Your task to perform on an android device: Open calendar and show me the fourth week of next month Image 0: 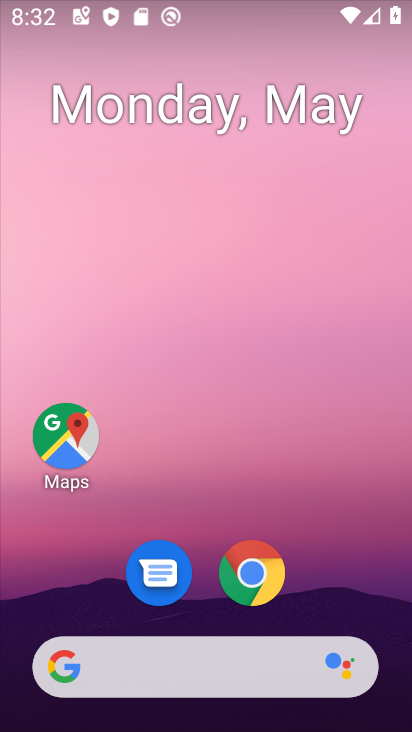
Step 0: drag from (348, 562) to (277, 162)
Your task to perform on an android device: Open calendar and show me the fourth week of next month Image 1: 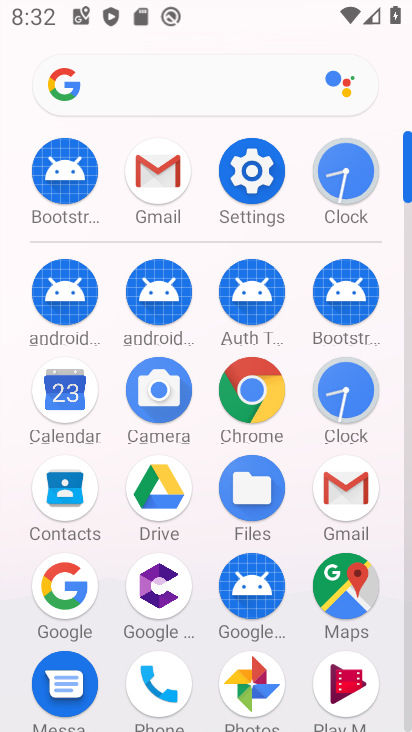
Step 1: click (59, 415)
Your task to perform on an android device: Open calendar and show me the fourth week of next month Image 2: 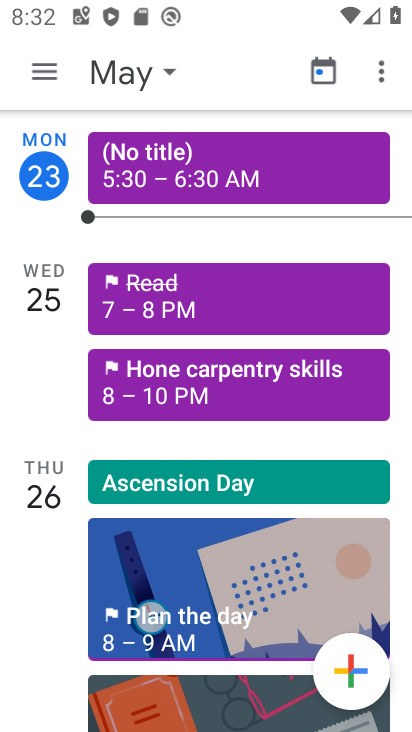
Step 2: click (148, 90)
Your task to perform on an android device: Open calendar and show me the fourth week of next month Image 3: 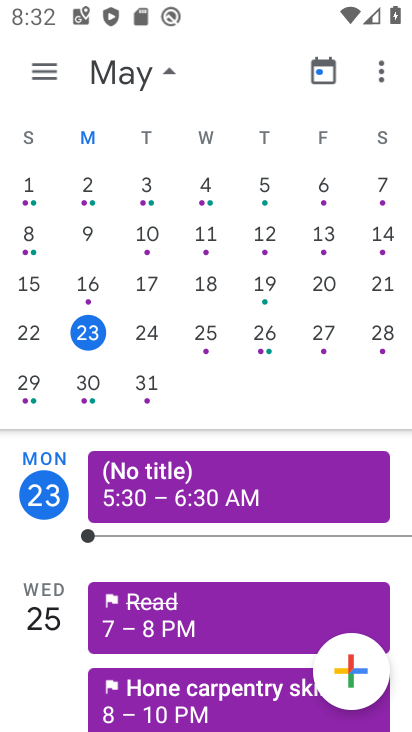
Step 3: drag from (392, 337) to (38, 349)
Your task to perform on an android device: Open calendar and show me the fourth week of next month Image 4: 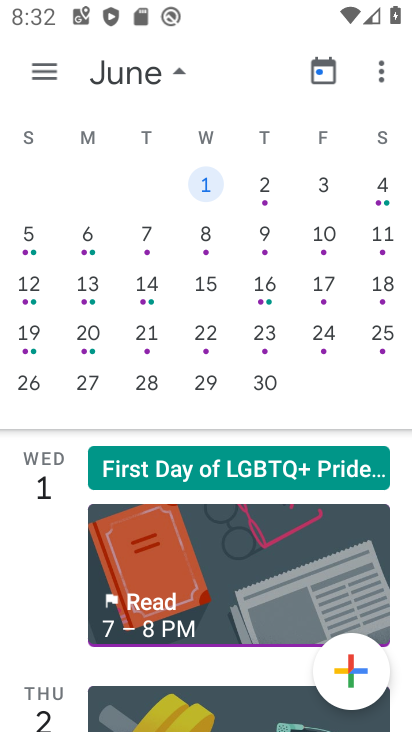
Step 4: click (257, 336)
Your task to perform on an android device: Open calendar and show me the fourth week of next month Image 5: 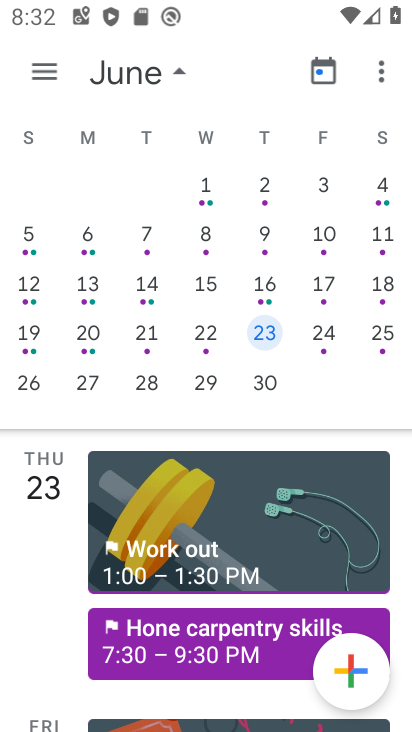
Step 5: task complete